Your task to perform on an android device: Go to Amazon Image 0: 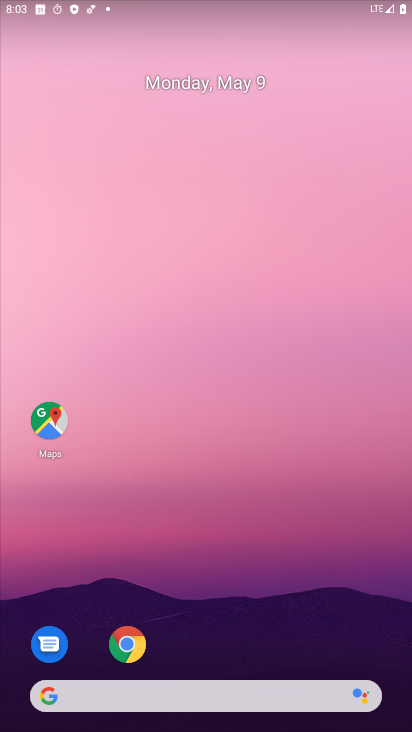
Step 0: drag from (199, 653) to (285, 239)
Your task to perform on an android device: Go to Amazon Image 1: 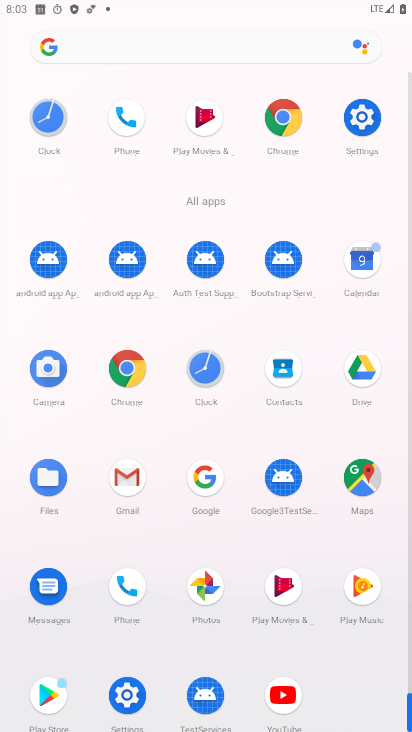
Step 1: click (127, 369)
Your task to perform on an android device: Go to Amazon Image 2: 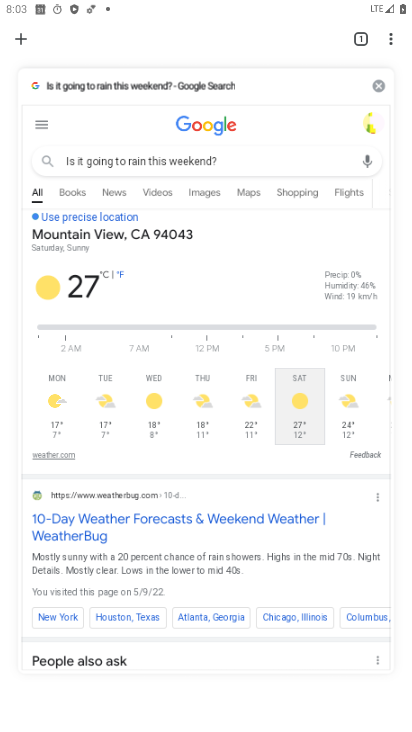
Step 2: click (157, 86)
Your task to perform on an android device: Go to Amazon Image 3: 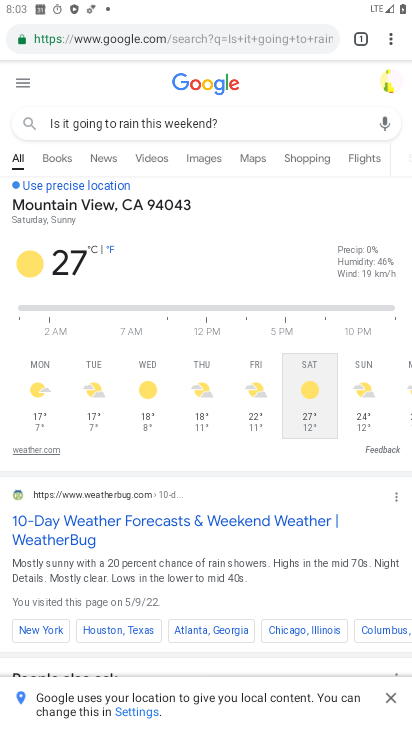
Step 3: click (147, 35)
Your task to perform on an android device: Go to Amazon Image 4: 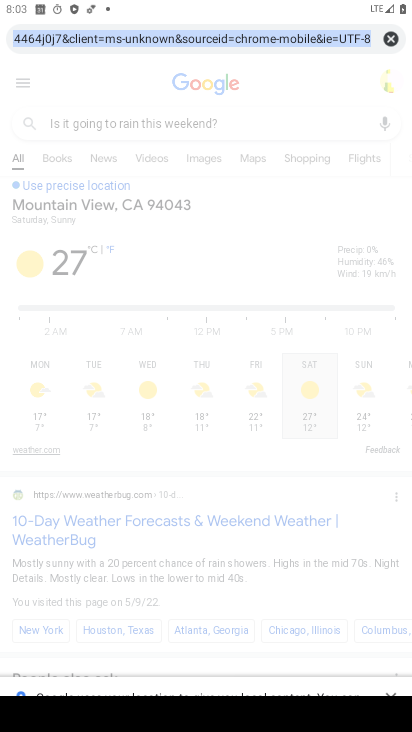
Step 4: type "Amazon"
Your task to perform on an android device: Go to Amazon Image 5: 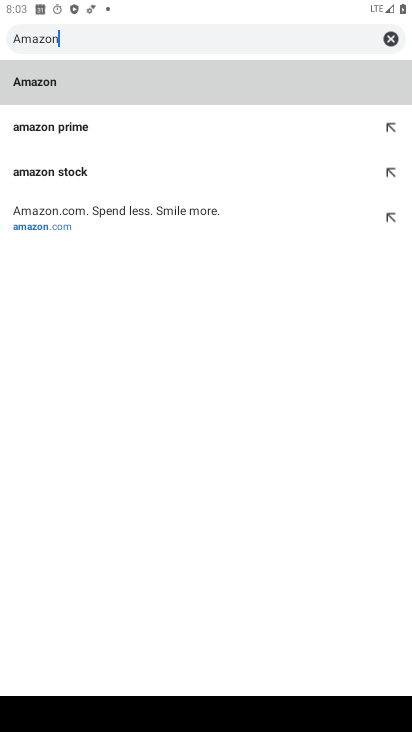
Step 5: click (100, 77)
Your task to perform on an android device: Go to Amazon Image 6: 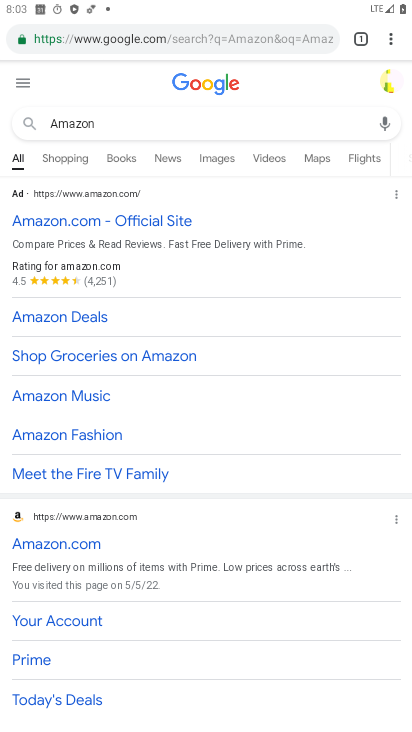
Step 6: task complete